Your task to perform on an android device: Show the shopping cart on target.com. Add alienware area 51 to the cart on target.com, then select checkout. Image 0: 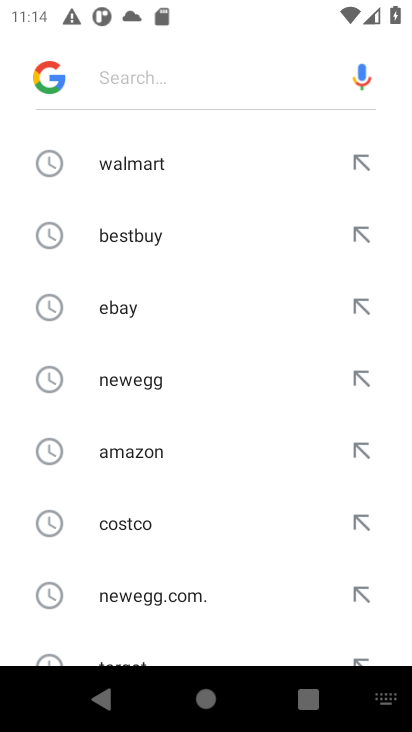
Step 0: click (145, 185)
Your task to perform on an android device: Show the shopping cart on target.com. Add alienware area 51 to the cart on target.com, then select checkout. Image 1: 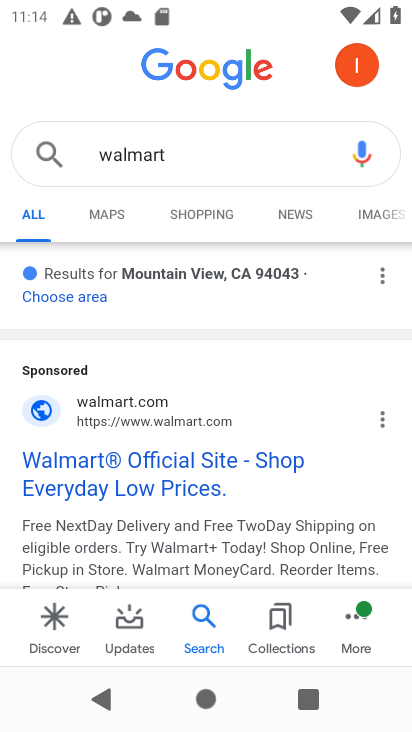
Step 1: click (248, 155)
Your task to perform on an android device: Show the shopping cart on target.com. Add alienware area 51 to the cart on target.com, then select checkout. Image 2: 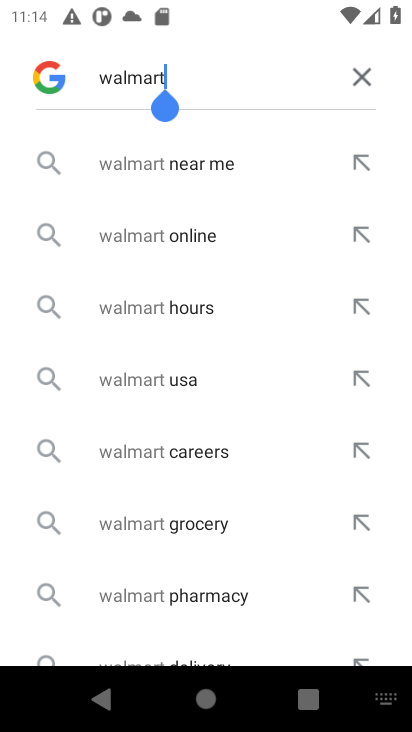
Step 2: click (365, 90)
Your task to perform on an android device: Show the shopping cart on target.com. Add alienware area 51 to the cart on target.com, then select checkout. Image 3: 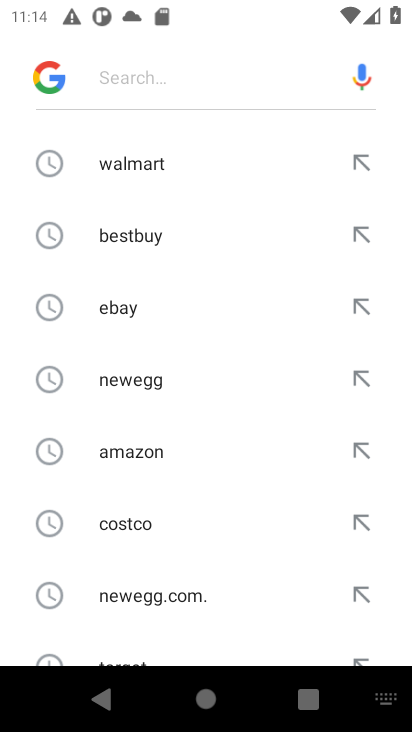
Step 3: type "target"
Your task to perform on an android device: Show the shopping cart on target.com. Add alienware area 51 to the cart on target.com, then select checkout. Image 4: 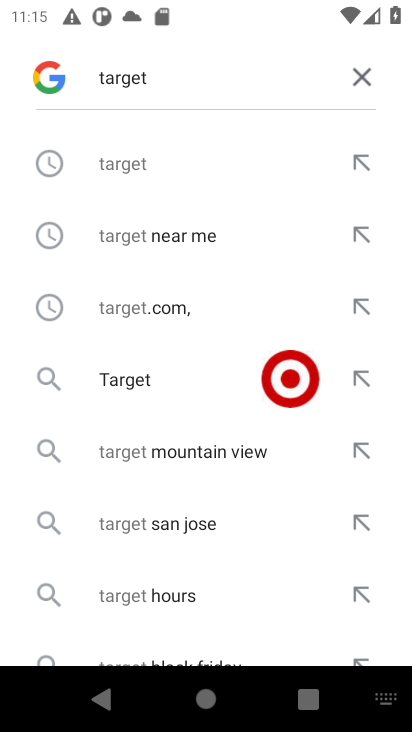
Step 4: click (101, 402)
Your task to perform on an android device: Show the shopping cart on target.com. Add alienware area 51 to the cart on target.com, then select checkout. Image 5: 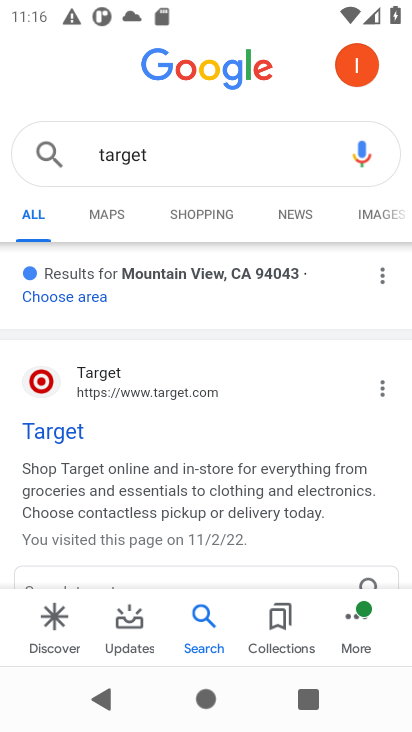
Step 5: click (125, 375)
Your task to perform on an android device: Show the shopping cart on target.com. Add alienware area 51 to the cart on target.com, then select checkout. Image 6: 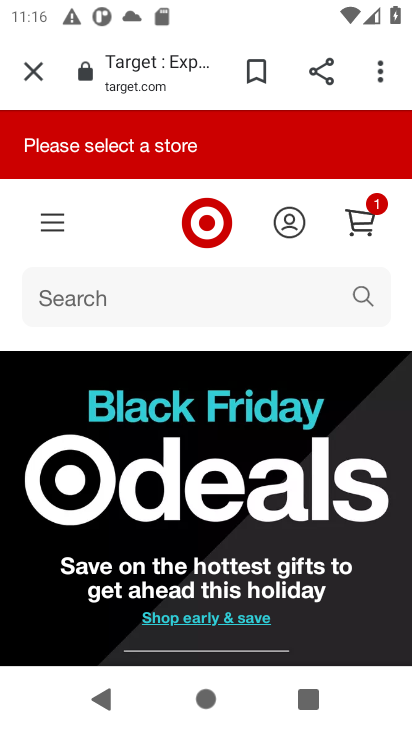
Step 6: click (172, 299)
Your task to perform on an android device: Show the shopping cart on target.com. Add alienware area 51 to the cart on target.com, then select checkout. Image 7: 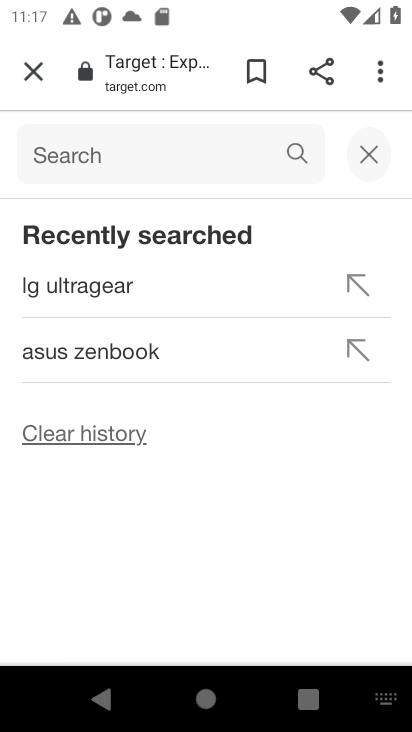
Step 7: type "alienware area 51"
Your task to perform on an android device: Show the shopping cart on target.com. Add alienware area 51 to the cart on target.com, then select checkout. Image 8: 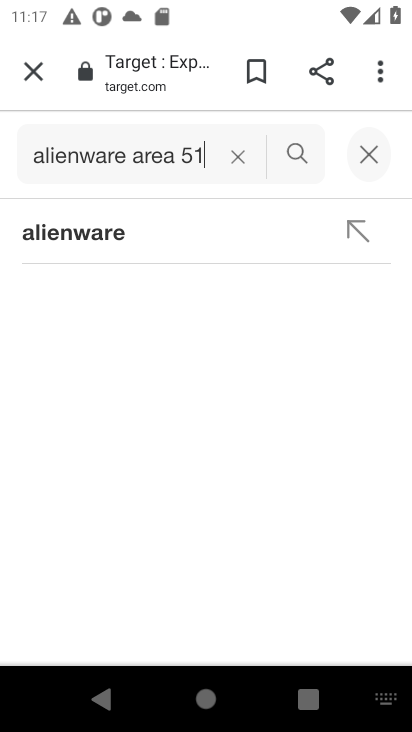
Step 8: click (169, 247)
Your task to perform on an android device: Show the shopping cart on target.com. Add alienware area 51 to the cart on target.com, then select checkout. Image 9: 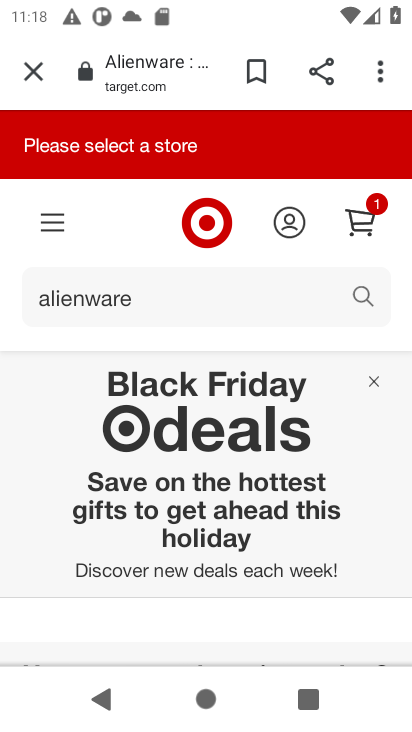
Step 9: drag from (272, 521) to (297, 313)
Your task to perform on an android device: Show the shopping cart on target.com. Add alienware area 51 to the cart on target.com, then select checkout. Image 10: 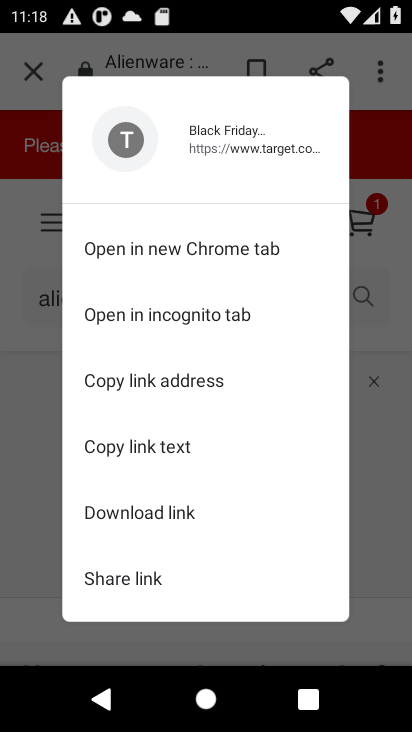
Step 10: click (385, 502)
Your task to perform on an android device: Show the shopping cart on target.com. Add alienware area 51 to the cart on target.com, then select checkout. Image 11: 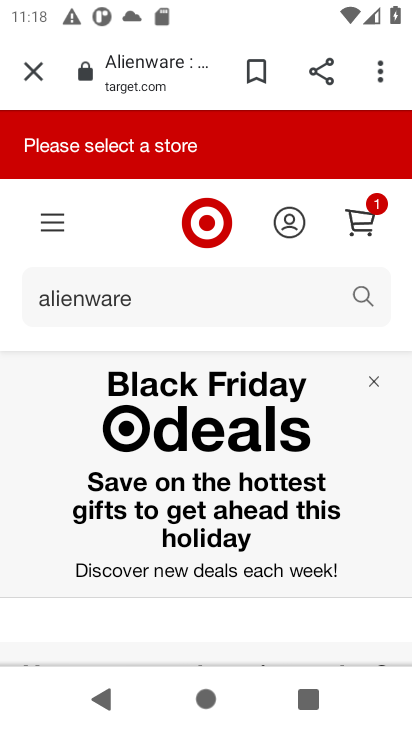
Step 11: task complete